Your task to perform on an android device: set the timer Image 0: 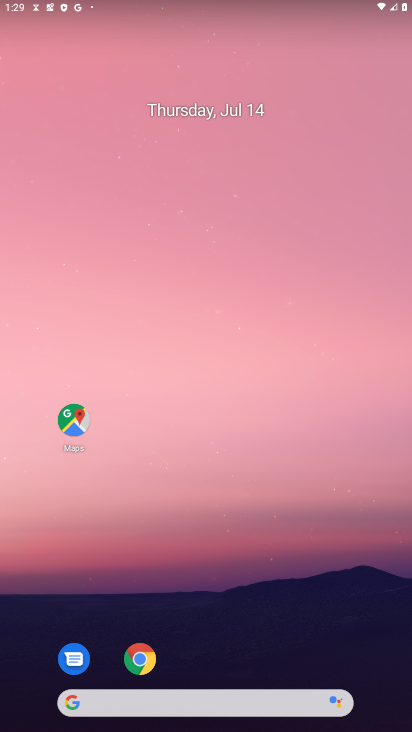
Step 0: drag from (55, 679) to (293, 267)
Your task to perform on an android device: set the timer Image 1: 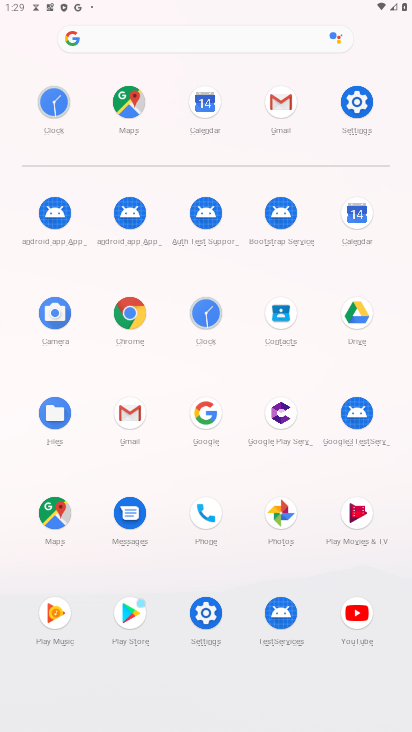
Step 1: click (215, 314)
Your task to perform on an android device: set the timer Image 2: 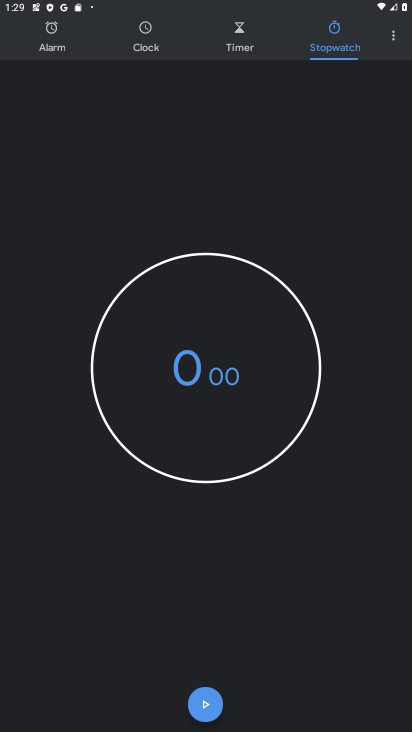
Step 2: click (229, 53)
Your task to perform on an android device: set the timer Image 3: 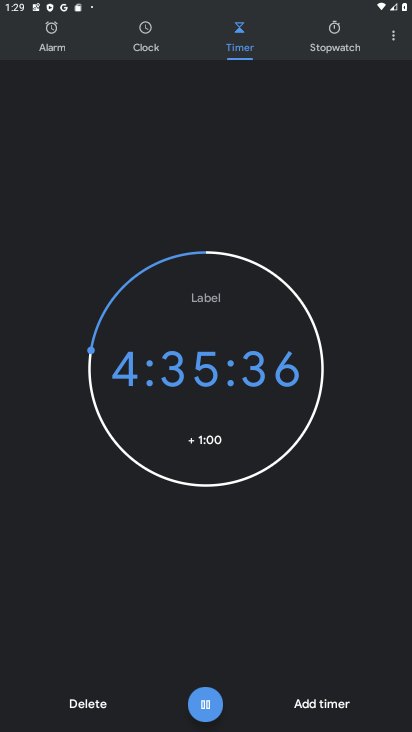
Step 3: click (211, 711)
Your task to perform on an android device: set the timer Image 4: 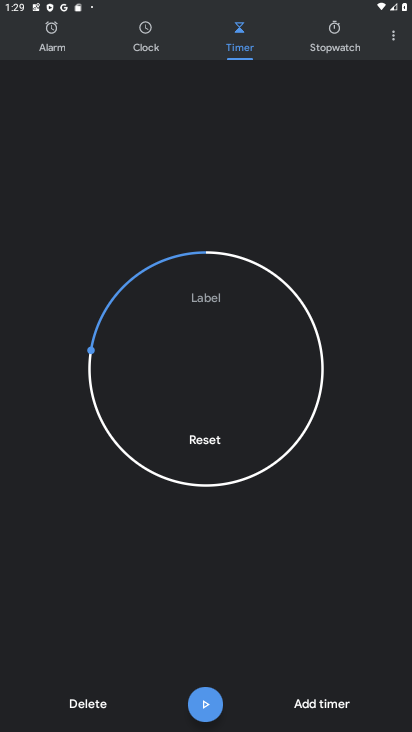
Step 4: task complete